Your task to perform on an android device: turn off notifications settings in the gmail app Image 0: 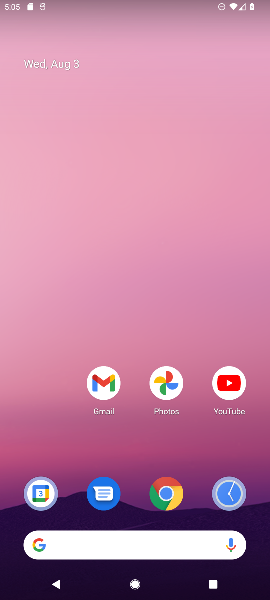
Step 0: press home button
Your task to perform on an android device: turn off notifications settings in the gmail app Image 1: 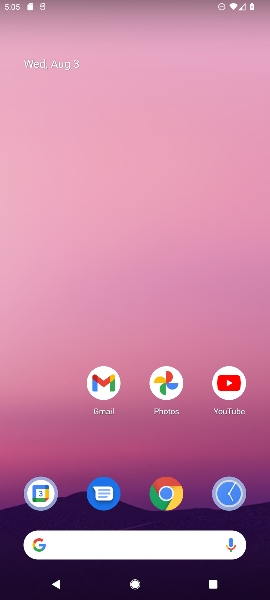
Step 1: drag from (52, 440) to (58, 128)
Your task to perform on an android device: turn off notifications settings in the gmail app Image 2: 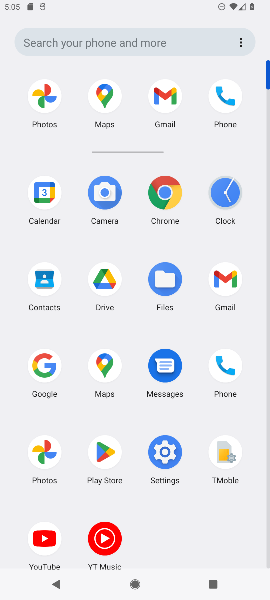
Step 2: click (227, 284)
Your task to perform on an android device: turn off notifications settings in the gmail app Image 3: 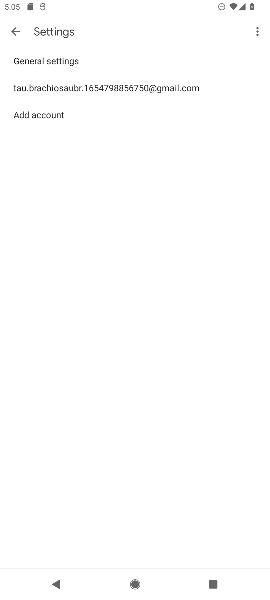
Step 3: click (96, 83)
Your task to perform on an android device: turn off notifications settings in the gmail app Image 4: 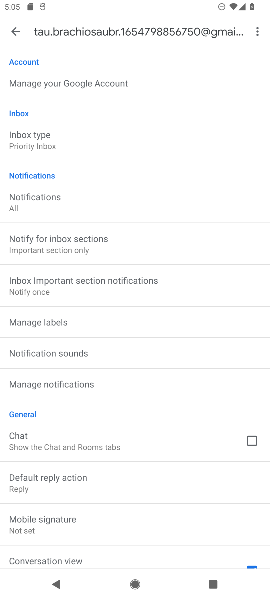
Step 4: drag from (163, 365) to (179, 300)
Your task to perform on an android device: turn off notifications settings in the gmail app Image 5: 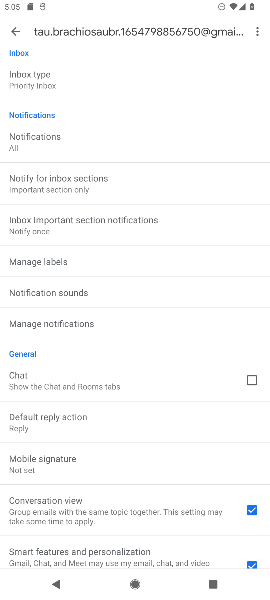
Step 5: drag from (179, 461) to (189, 369)
Your task to perform on an android device: turn off notifications settings in the gmail app Image 6: 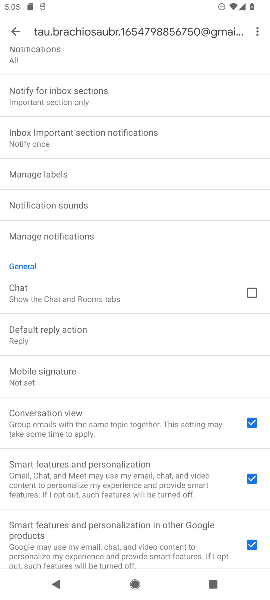
Step 6: drag from (173, 502) to (187, 380)
Your task to perform on an android device: turn off notifications settings in the gmail app Image 7: 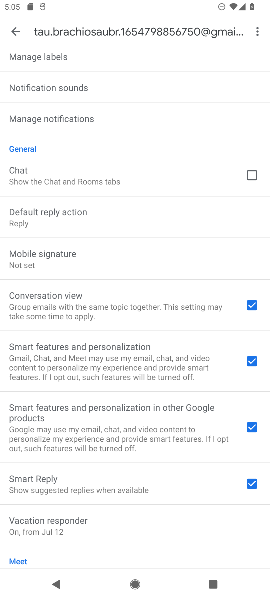
Step 7: drag from (181, 483) to (189, 389)
Your task to perform on an android device: turn off notifications settings in the gmail app Image 8: 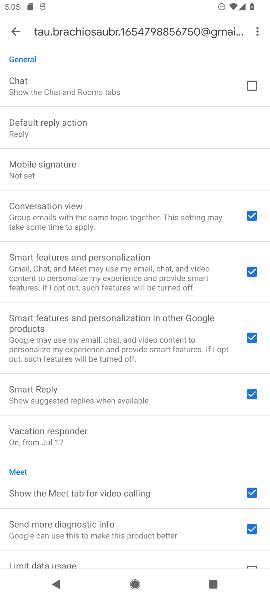
Step 8: drag from (188, 516) to (190, 424)
Your task to perform on an android device: turn off notifications settings in the gmail app Image 9: 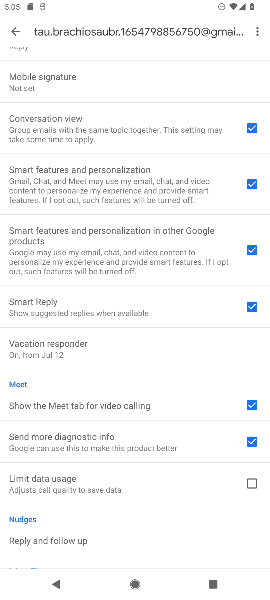
Step 9: drag from (182, 511) to (173, 359)
Your task to perform on an android device: turn off notifications settings in the gmail app Image 10: 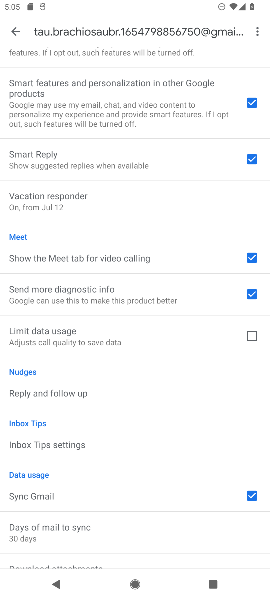
Step 10: drag from (179, 209) to (177, 315)
Your task to perform on an android device: turn off notifications settings in the gmail app Image 11: 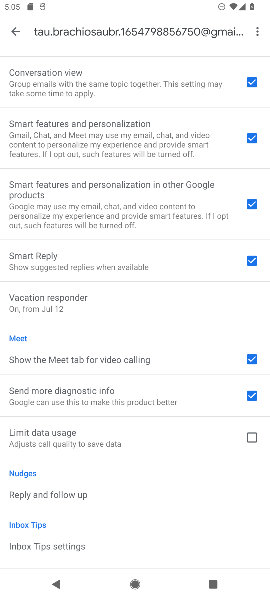
Step 11: drag from (188, 226) to (187, 353)
Your task to perform on an android device: turn off notifications settings in the gmail app Image 12: 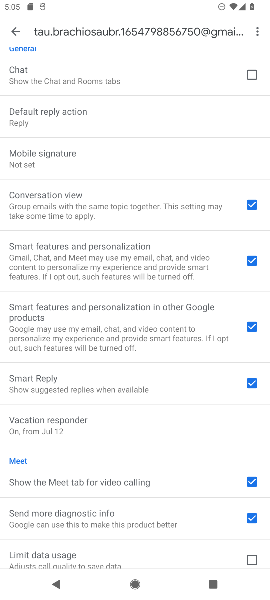
Step 12: drag from (176, 159) to (176, 320)
Your task to perform on an android device: turn off notifications settings in the gmail app Image 13: 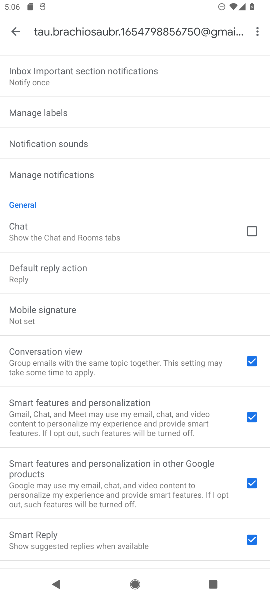
Step 13: drag from (163, 167) to (173, 321)
Your task to perform on an android device: turn off notifications settings in the gmail app Image 14: 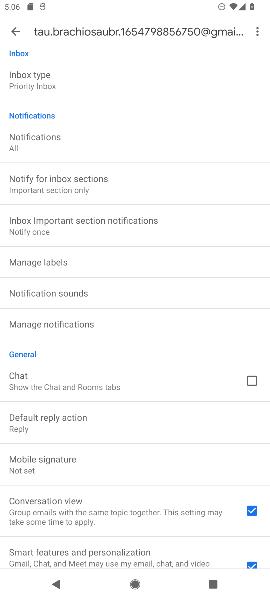
Step 14: click (97, 322)
Your task to perform on an android device: turn off notifications settings in the gmail app Image 15: 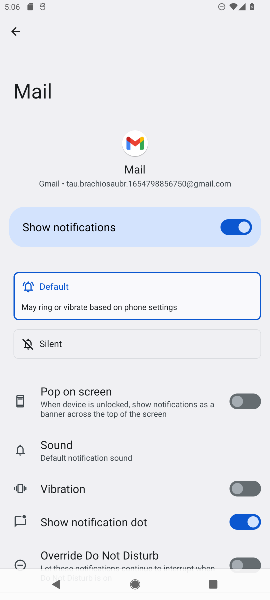
Step 15: click (226, 226)
Your task to perform on an android device: turn off notifications settings in the gmail app Image 16: 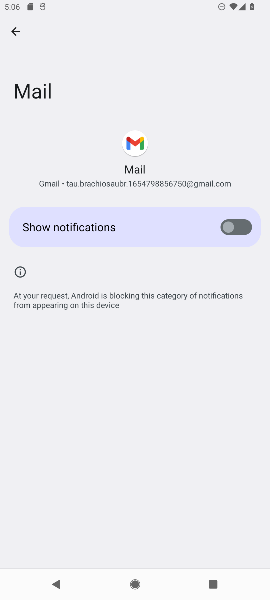
Step 16: task complete